Your task to perform on an android device: find which apps use the phone's location Image 0: 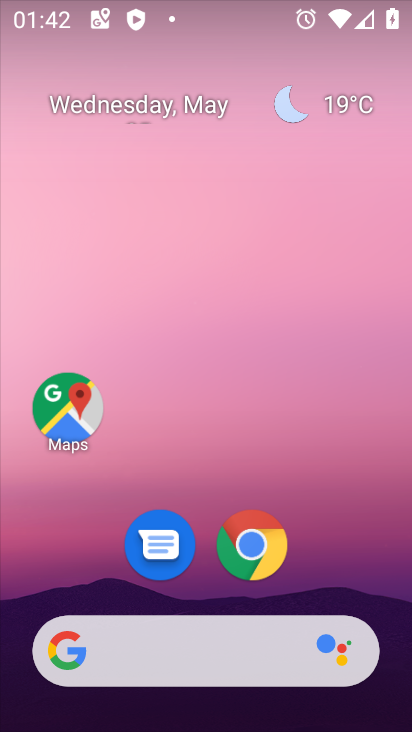
Step 0: drag from (319, 576) to (270, 136)
Your task to perform on an android device: find which apps use the phone's location Image 1: 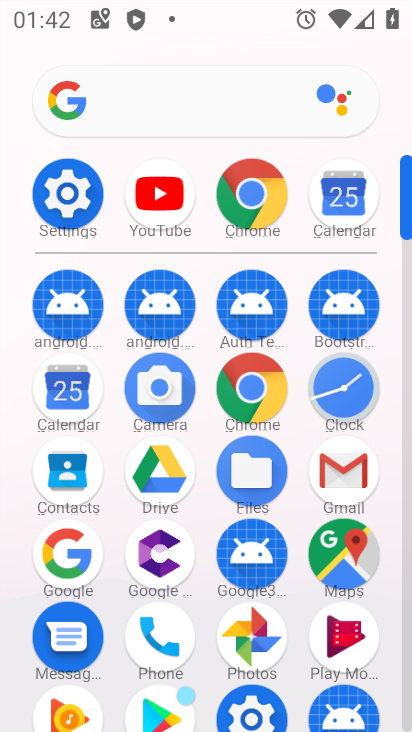
Step 1: click (63, 179)
Your task to perform on an android device: find which apps use the phone's location Image 2: 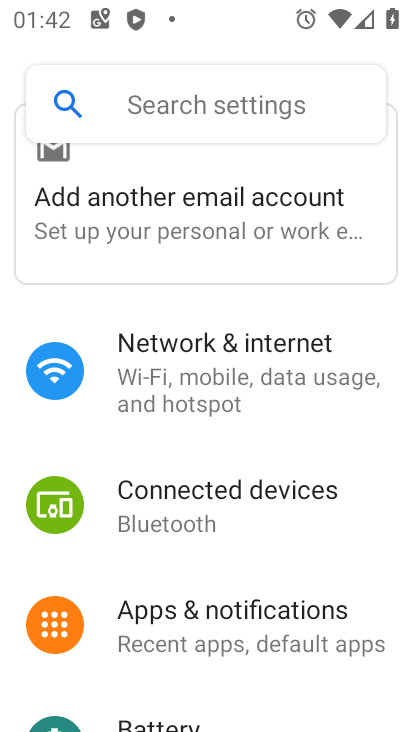
Step 2: drag from (316, 559) to (339, 171)
Your task to perform on an android device: find which apps use the phone's location Image 3: 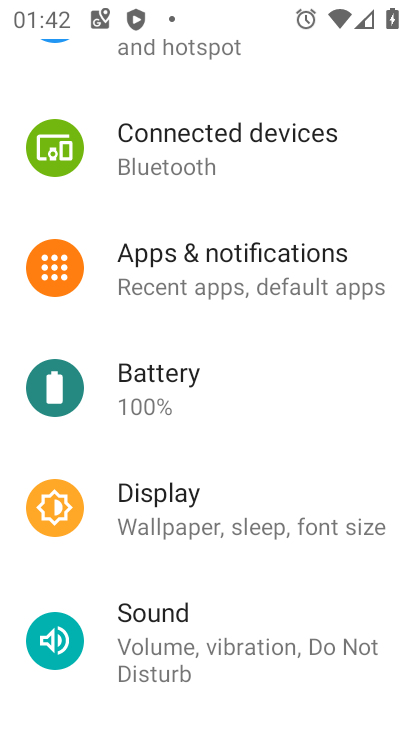
Step 3: drag from (245, 570) to (237, 200)
Your task to perform on an android device: find which apps use the phone's location Image 4: 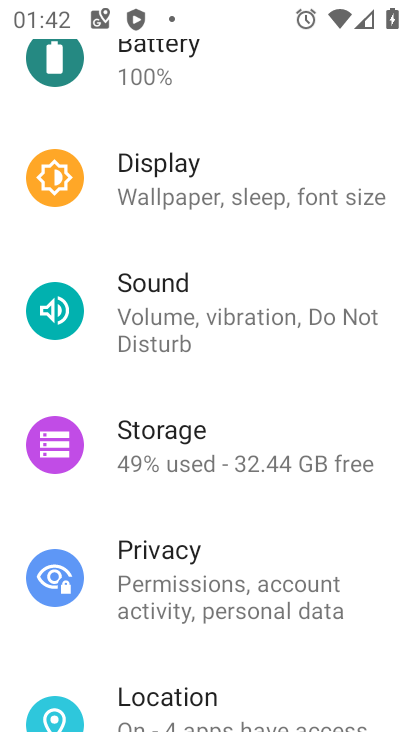
Step 4: drag from (207, 399) to (244, 139)
Your task to perform on an android device: find which apps use the phone's location Image 5: 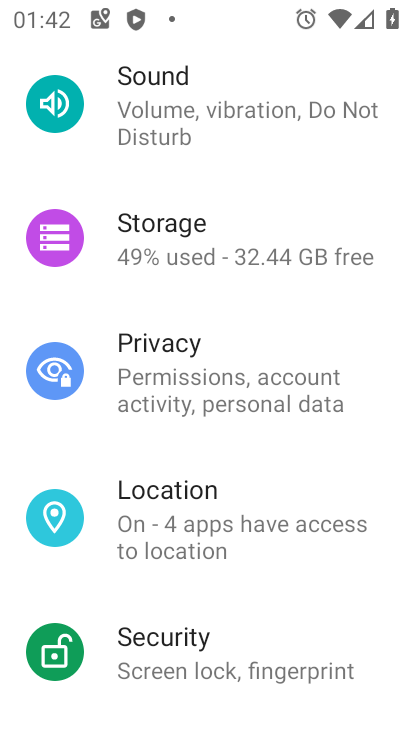
Step 5: click (156, 492)
Your task to perform on an android device: find which apps use the phone's location Image 6: 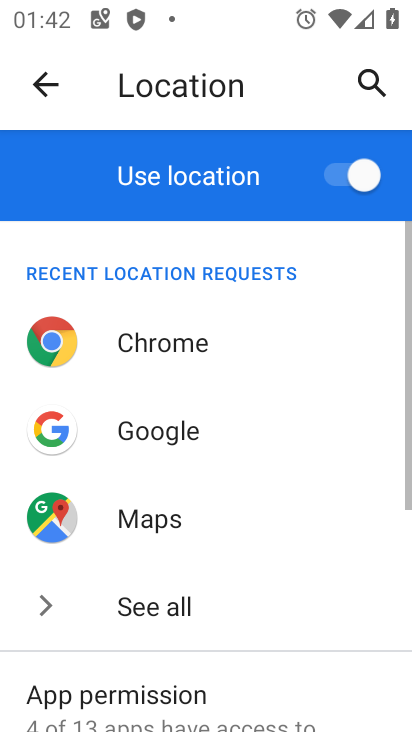
Step 6: drag from (214, 618) to (294, 231)
Your task to perform on an android device: find which apps use the phone's location Image 7: 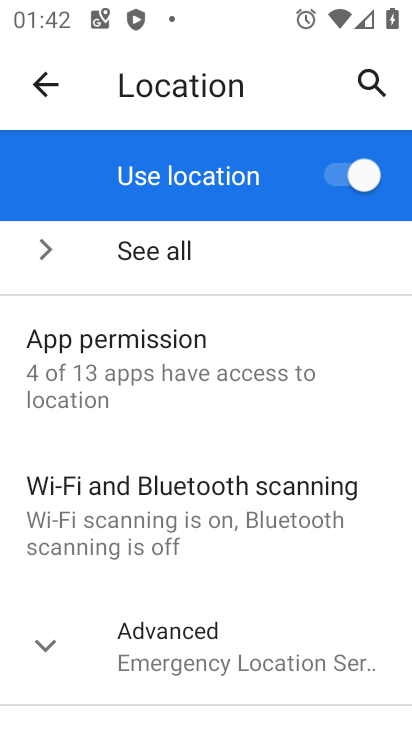
Step 7: drag from (238, 606) to (268, 299)
Your task to perform on an android device: find which apps use the phone's location Image 8: 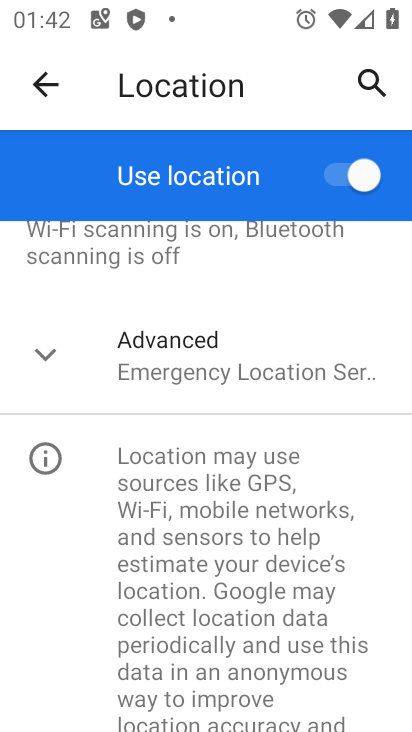
Step 8: drag from (241, 291) to (218, 666)
Your task to perform on an android device: find which apps use the phone's location Image 9: 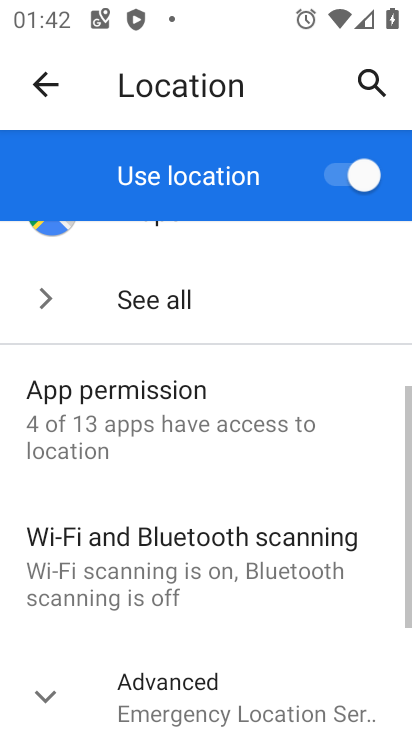
Step 9: click (226, 438)
Your task to perform on an android device: find which apps use the phone's location Image 10: 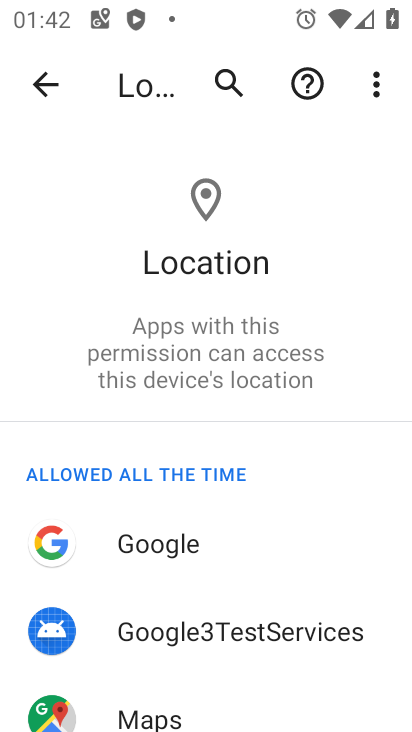
Step 10: task complete